Your task to perform on an android device: Open Reddit.com Image 0: 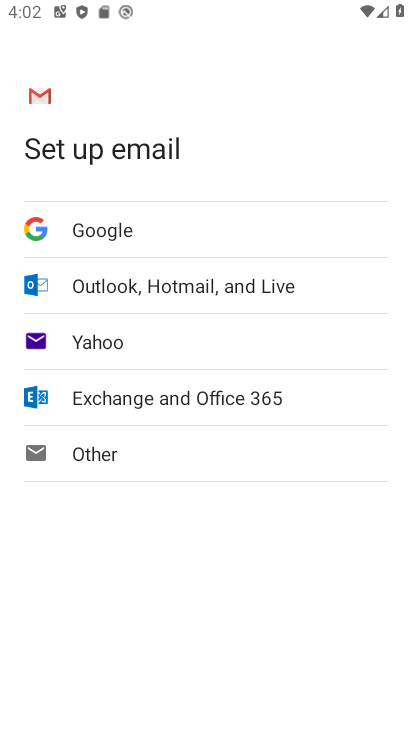
Step 0: drag from (241, 612) to (213, 447)
Your task to perform on an android device: Open Reddit.com Image 1: 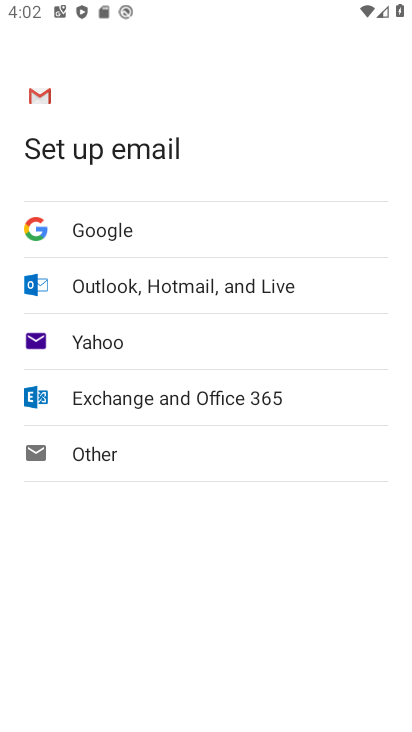
Step 1: press back button
Your task to perform on an android device: Open Reddit.com Image 2: 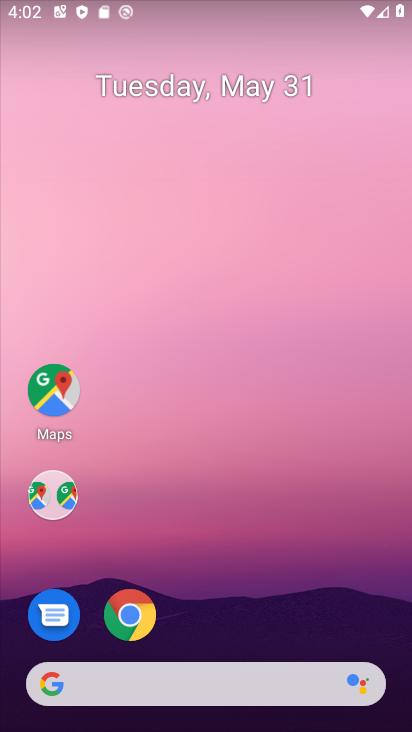
Step 2: drag from (253, 692) to (150, 146)
Your task to perform on an android device: Open Reddit.com Image 3: 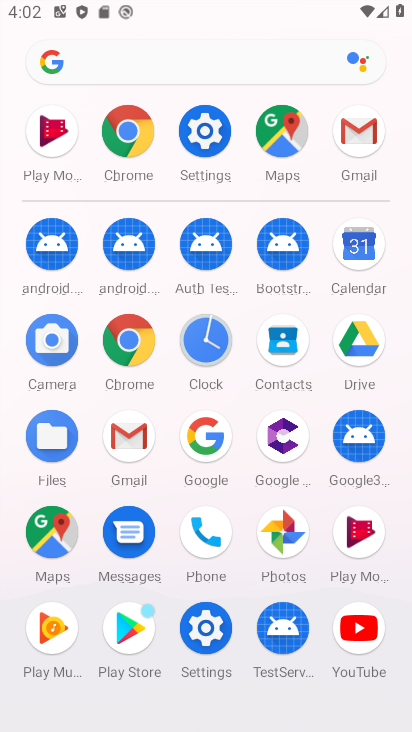
Step 3: click (126, 128)
Your task to perform on an android device: Open Reddit.com Image 4: 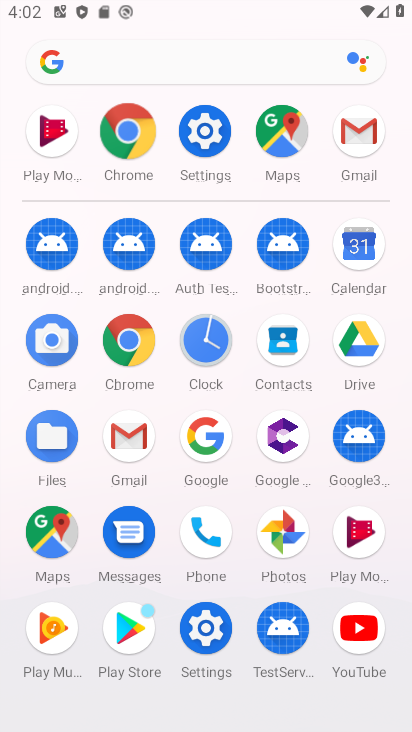
Step 4: click (127, 129)
Your task to perform on an android device: Open Reddit.com Image 5: 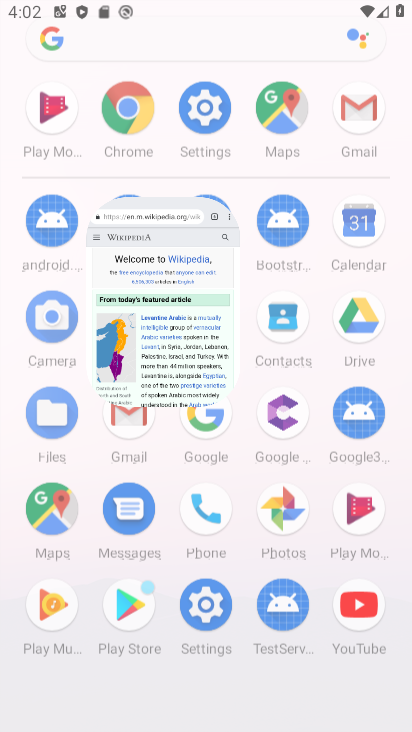
Step 5: click (127, 129)
Your task to perform on an android device: Open Reddit.com Image 6: 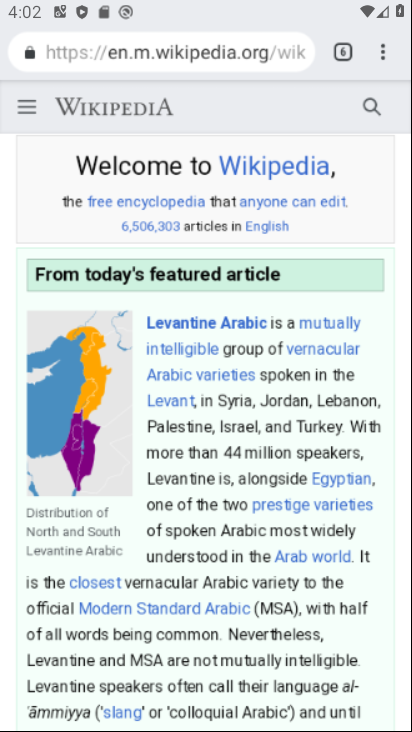
Step 6: click (126, 130)
Your task to perform on an android device: Open Reddit.com Image 7: 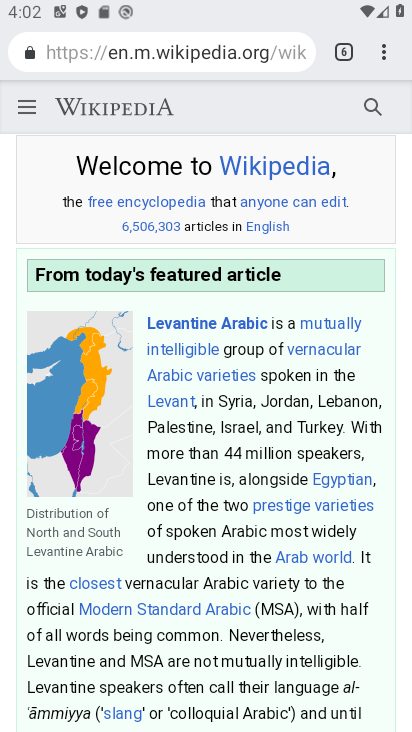
Step 7: click (386, 53)
Your task to perform on an android device: Open Reddit.com Image 8: 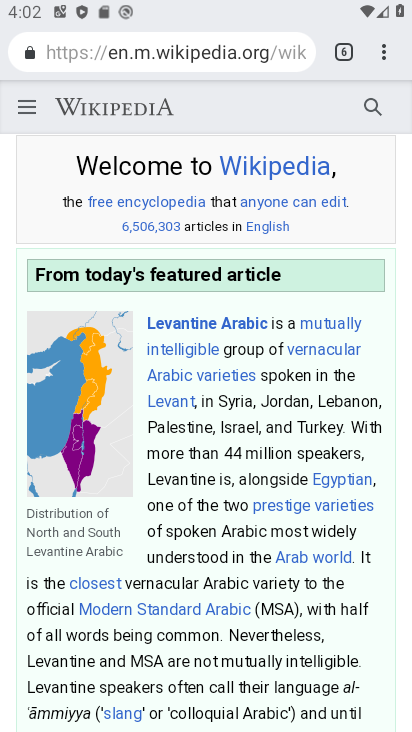
Step 8: click (384, 50)
Your task to perform on an android device: Open Reddit.com Image 9: 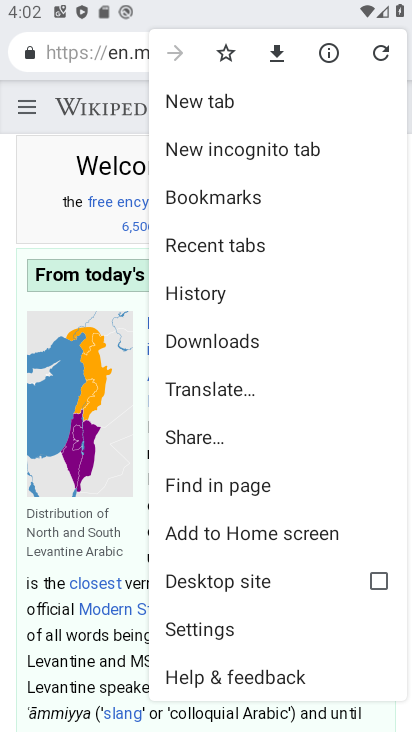
Step 9: click (204, 103)
Your task to perform on an android device: Open Reddit.com Image 10: 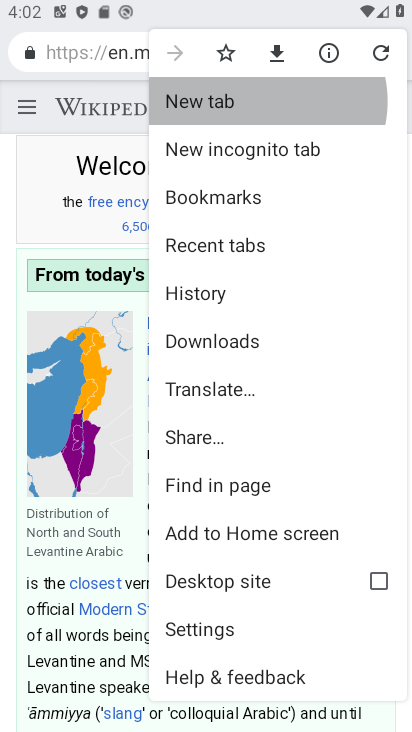
Step 10: click (204, 102)
Your task to perform on an android device: Open Reddit.com Image 11: 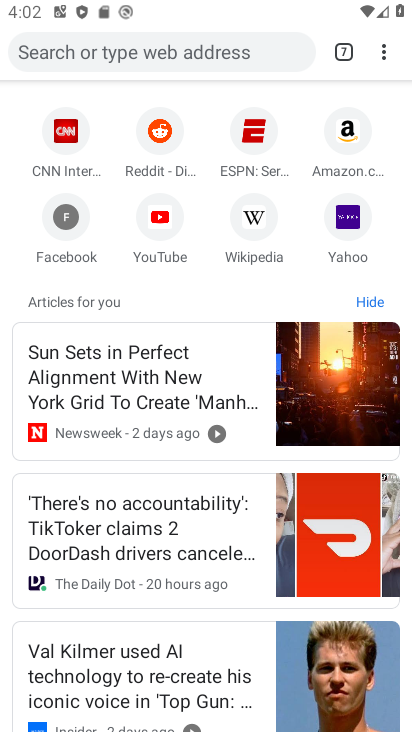
Step 11: click (158, 138)
Your task to perform on an android device: Open Reddit.com Image 12: 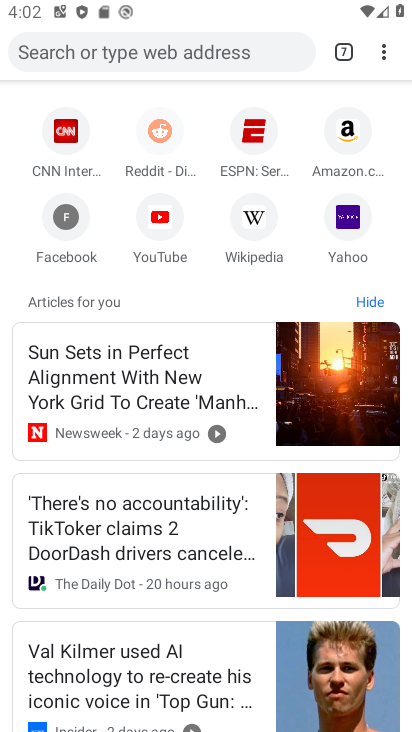
Step 12: click (160, 135)
Your task to perform on an android device: Open Reddit.com Image 13: 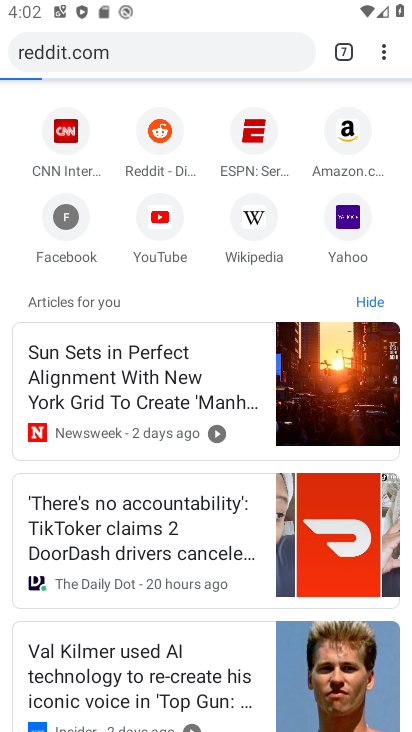
Step 13: click (164, 132)
Your task to perform on an android device: Open Reddit.com Image 14: 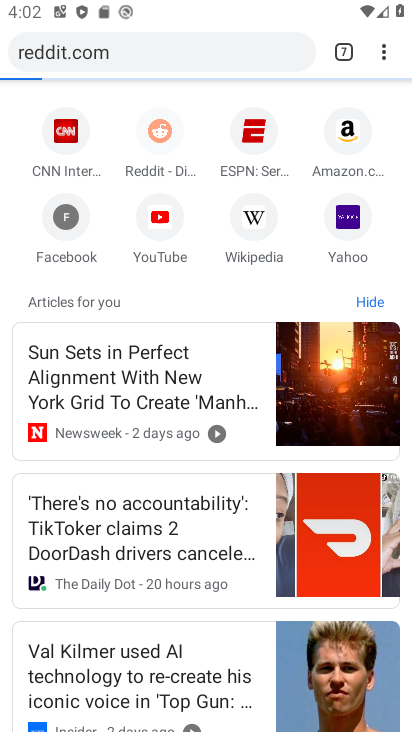
Step 14: click (164, 132)
Your task to perform on an android device: Open Reddit.com Image 15: 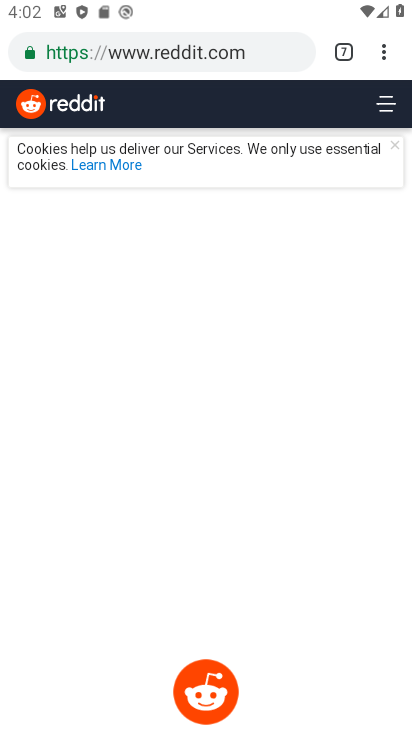
Step 15: task complete